Your task to perform on an android device: Check the settings for the Google Chrome app Image 0: 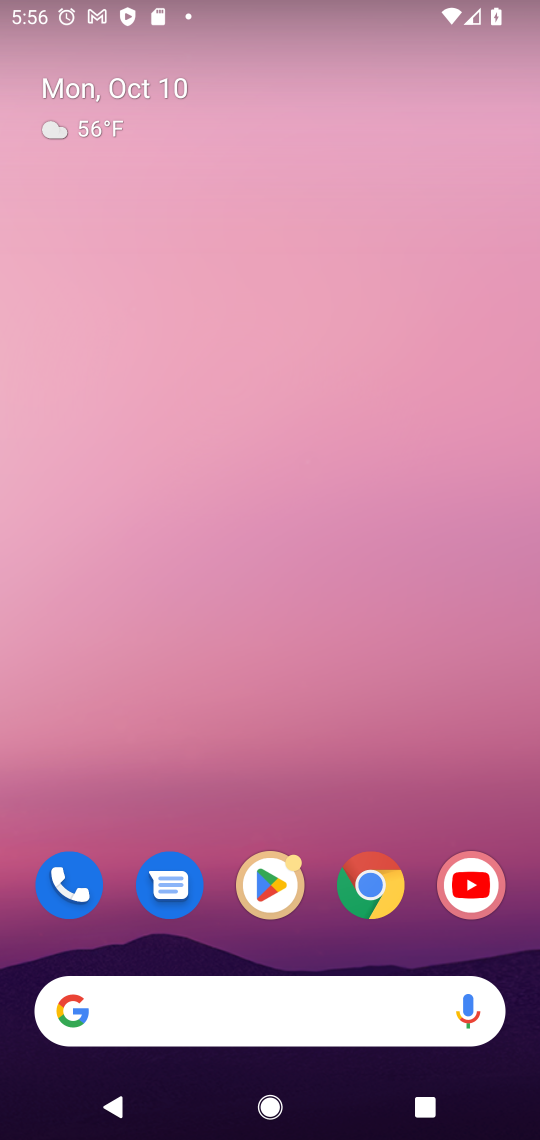
Step 0: click (357, 888)
Your task to perform on an android device: Check the settings for the Google Chrome app Image 1: 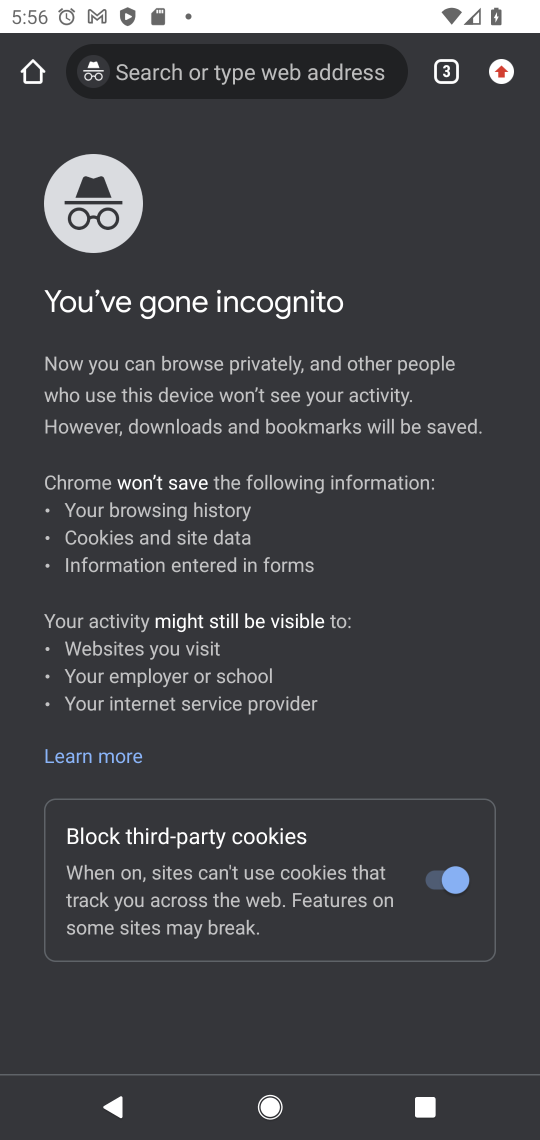
Step 1: click (511, 69)
Your task to perform on an android device: Check the settings for the Google Chrome app Image 2: 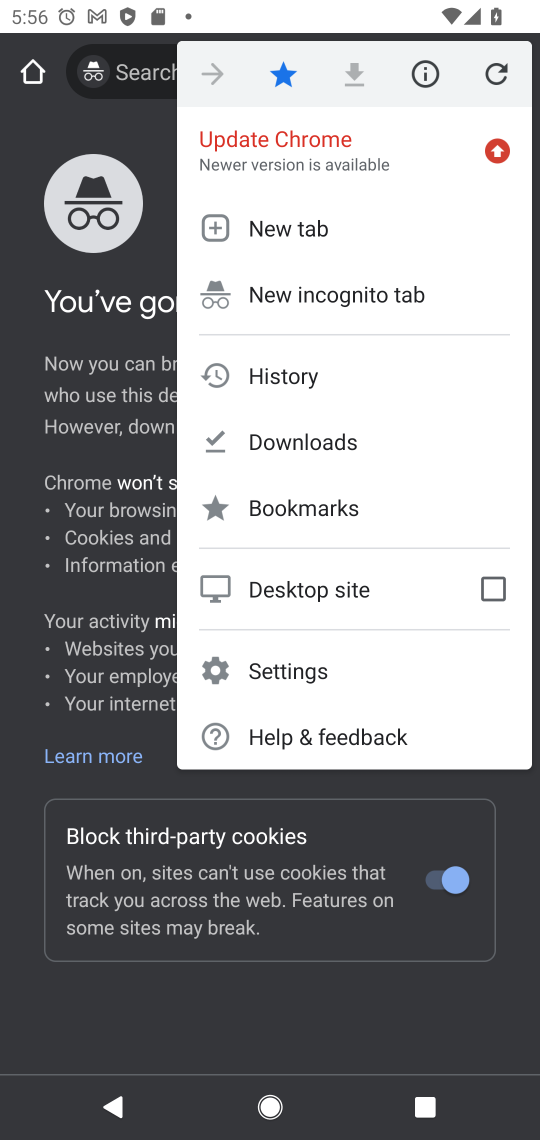
Step 2: click (295, 672)
Your task to perform on an android device: Check the settings for the Google Chrome app Image 3: 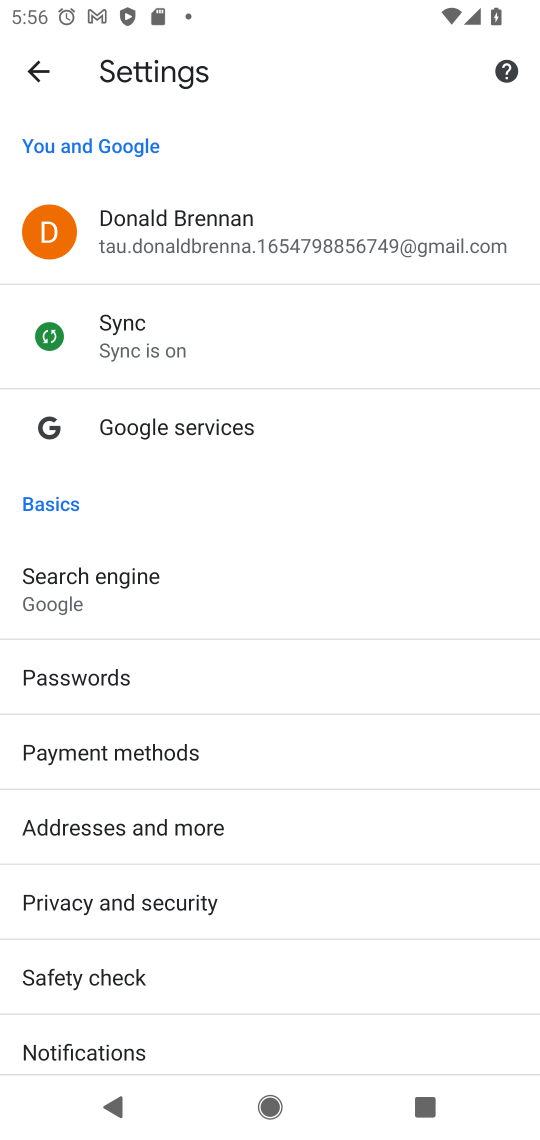
Step 3: task complete